Your task to perform on an android device: change your default location settings in chrome Image 0: 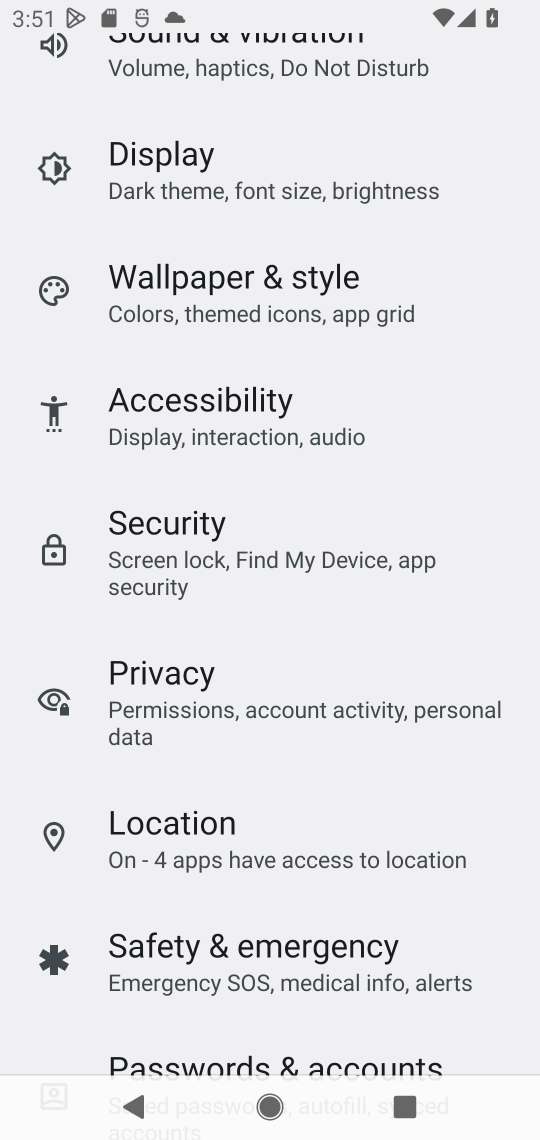
Step 0: press home button
Your task to perform on an android device: change your default location settings in chrome Image 1: 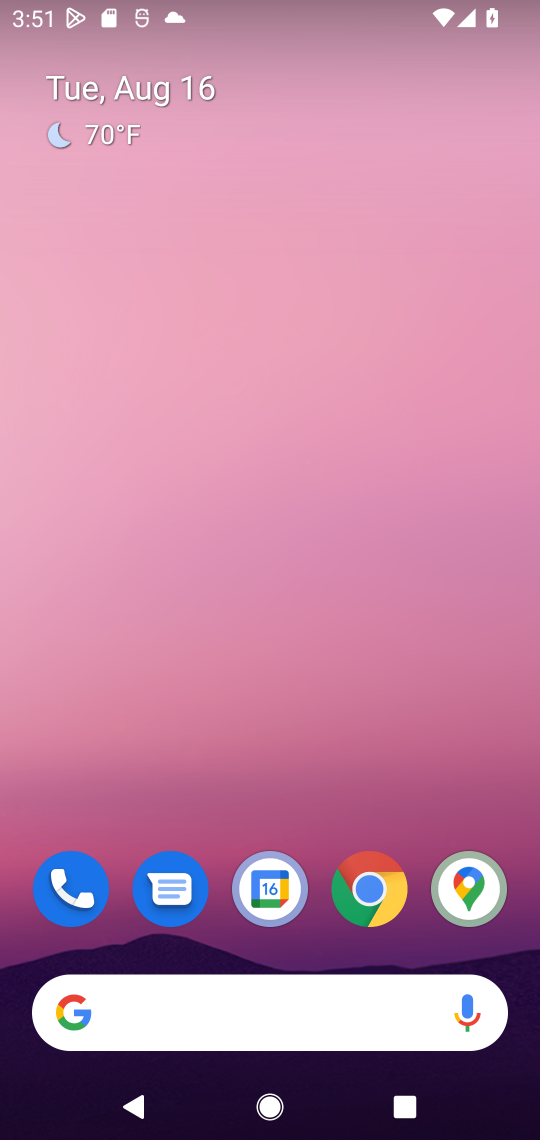
Step 1: click (383, 875)
Your task to perform on an android device: change your default location settings in chrome Image 2: 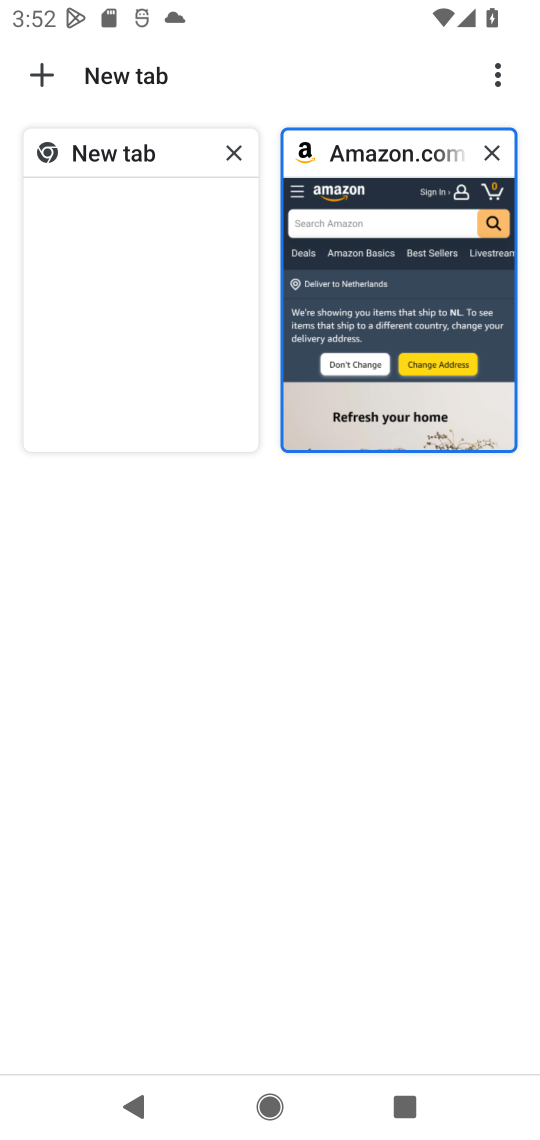
Step 2: click (497, 73)
Your task to perform on an android device: change your default location settings in chrome Image 3: 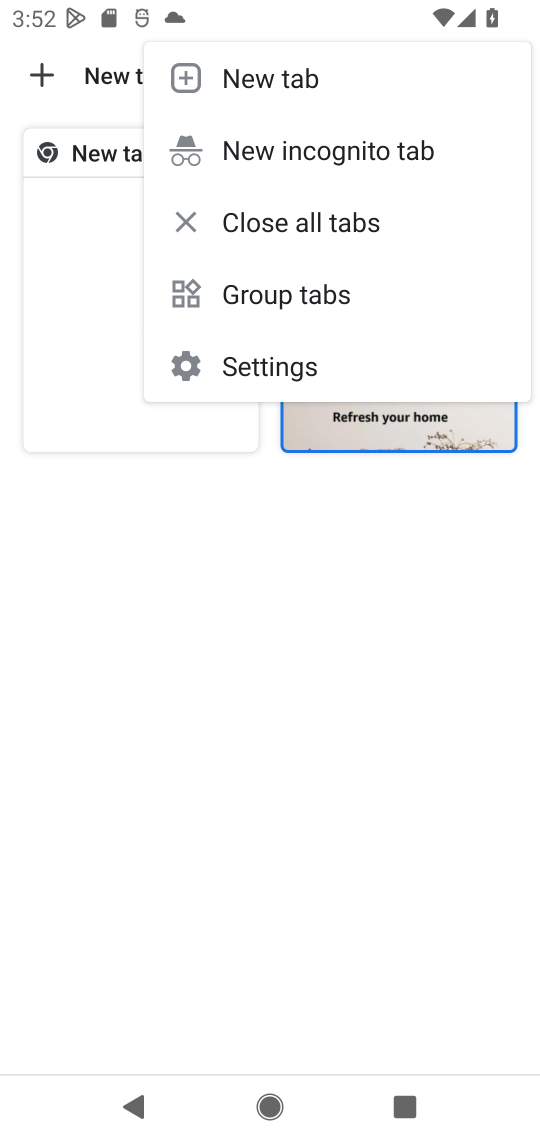
Step 3: click (250, 361)
Your task to perform on an android device: change your default location settings in chrome Image 4: 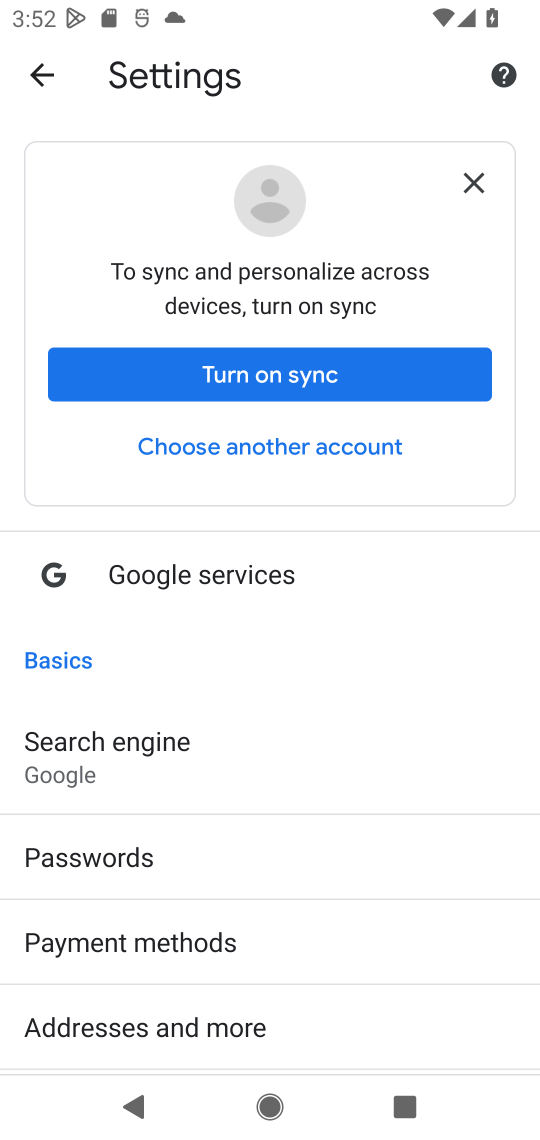
Step 4: click (485, 173)
Your task to perform on an android device: change your default location settings in chrome Image 5: 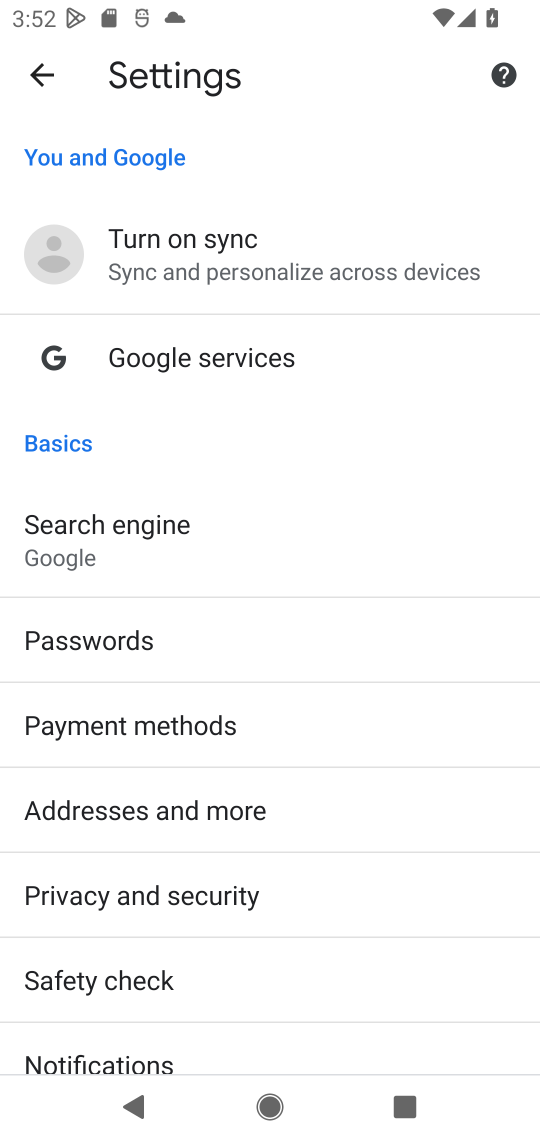
Step 5: task complete